Your task to perform on an android device: Check the news Image 0: 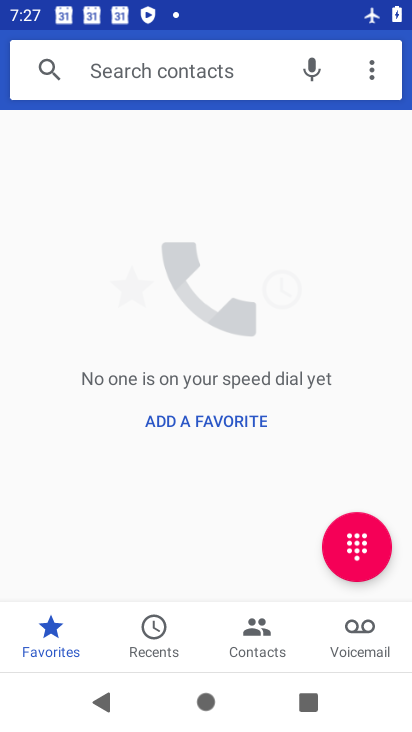
Step 0: press home button
Your task to perform on an android device: Check the news Image 1: 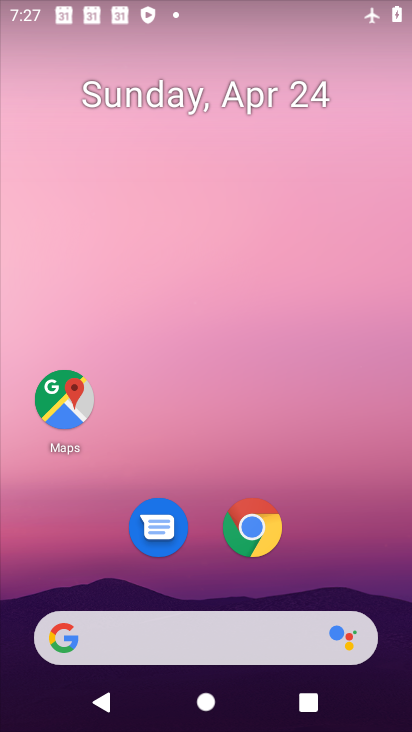
Step 1: click (259, 537)
Your task to perform on an android device: Check the news Image 2: 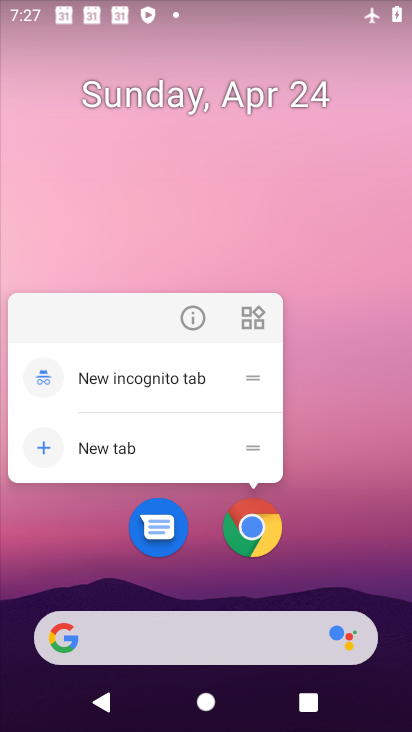
Step 2: click (258, 536)
Your task to perform on an android device: Check the news Image 3: 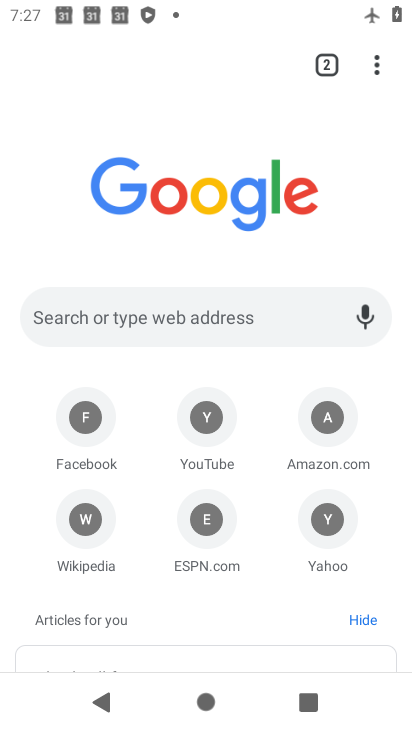
Step 3: drag from (267, 589) to (274, 125)
Your task to perform on an android device: Check the news Image 4: 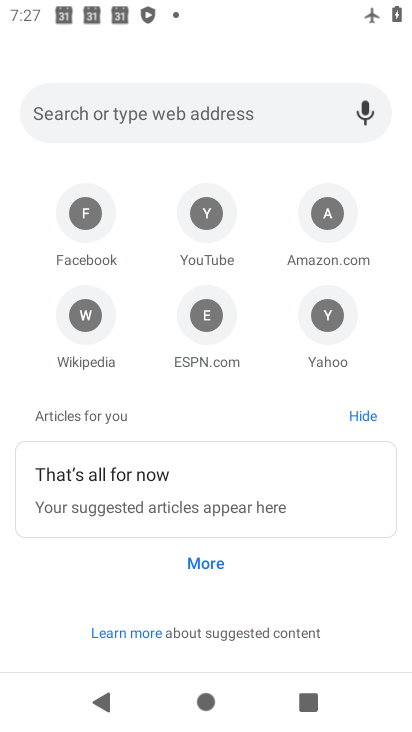
Step 4: click (175, 562)
Your task to perform on an android device: Check the news Image 5: 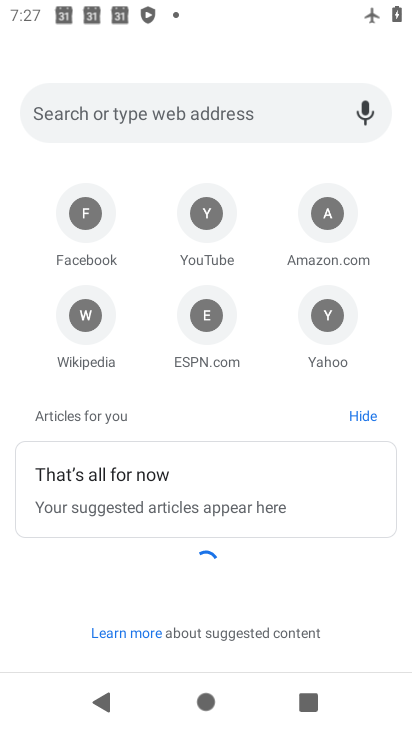
Step 5: task complete